Your task to perform on an android device: turn on showing notifications on the lock screen Image 0: 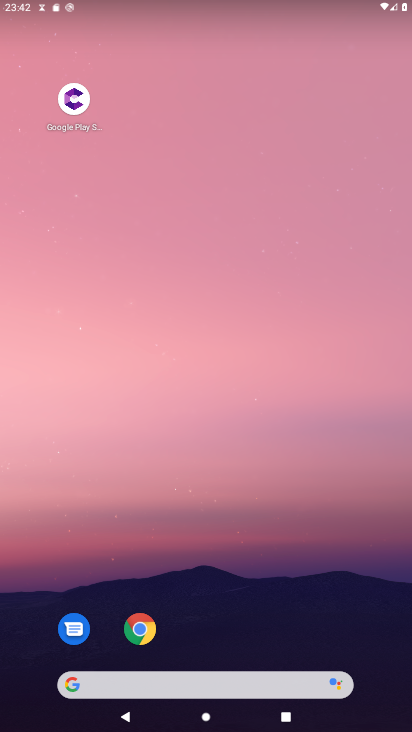
Step 0: drag from (290, 668) to (299, 433)
Your task to perform on an android device: turn on showing notifications on the lock screen Image 1: 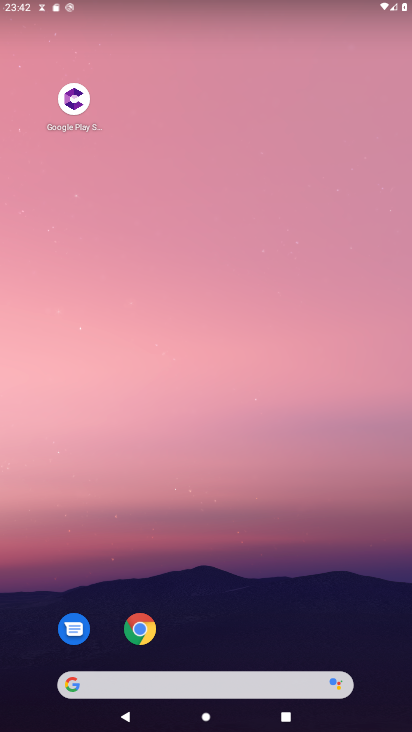
Step 1: drag from (194, 690) to (278, 146)
Your task to perform on an android device: turn on showing notifications on the lock screen Image 2: 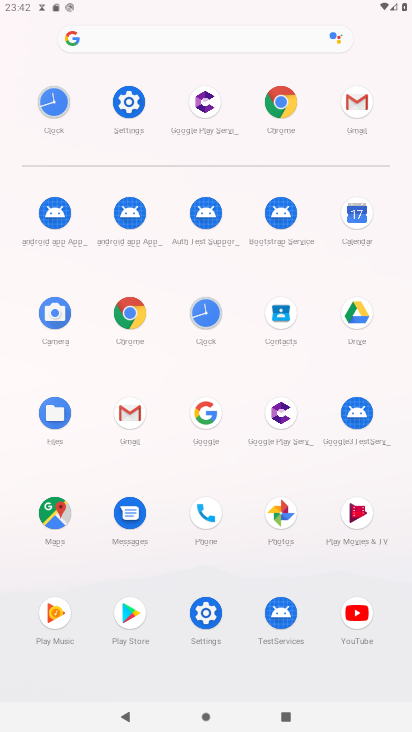
Step 2: click (129, 98)
Your task to perform on an android device: turn on showing notifications on the lock screen Image 3: 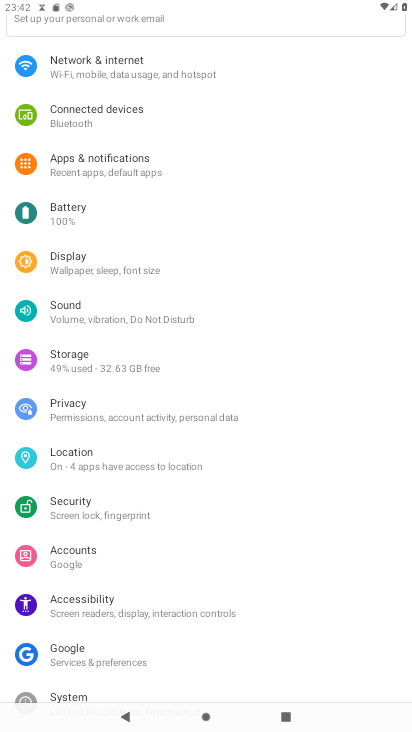
Step 3: drag from (178, 232) to (164, 648)
Your task to perform on an android device: turn on showing notifications on the lock screen Image 4: 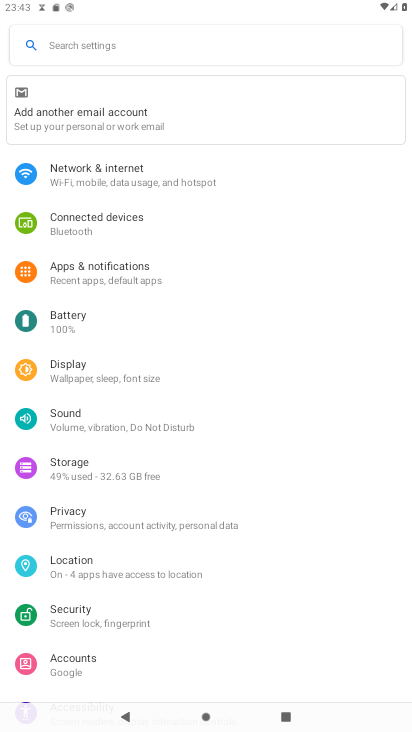
Step 4: click (138, 285)
Your task to perform on an android device: turn on showing notifications on the lock screen Image 5: 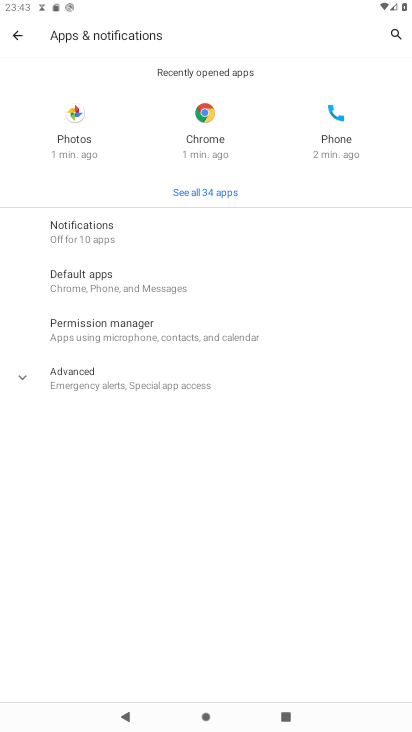
Step 5: click (131, 231)
Your task to perform on an android device: turn on showing notifications on the lock screen Image 6: 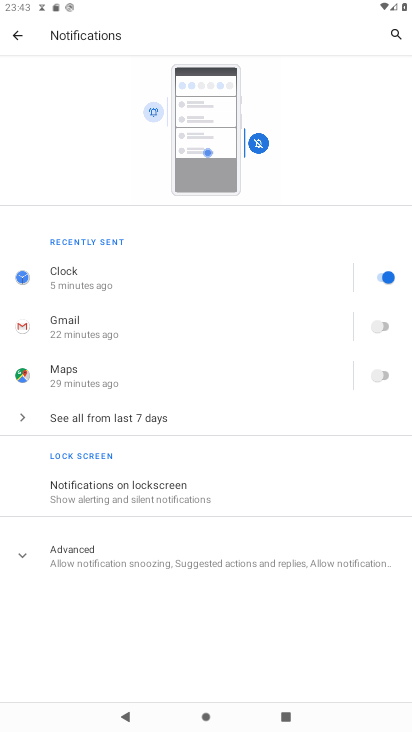
Step 6: click (169, 557)
Your task to perform on an android device: turn on showing notifications on the lock screen Image 7: 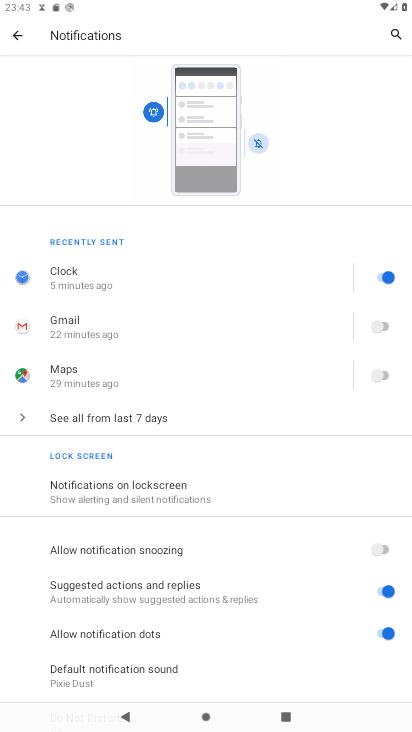
Step 7: click (133, 470)
Your task to perform on an android device: turn on showing notifications on the lock screen Image 8: 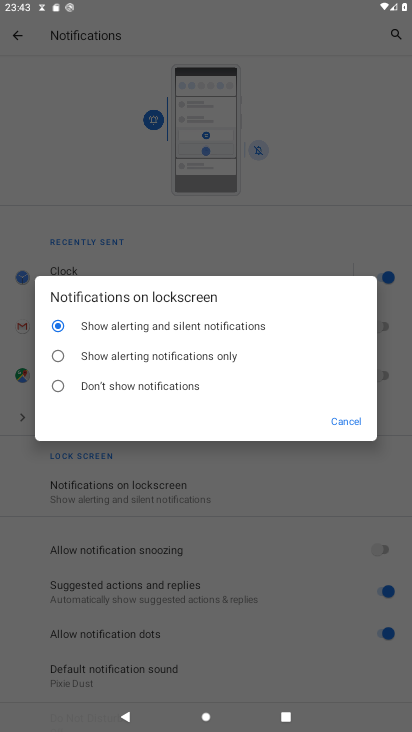
Step 8: task complete